Your task to perform on an android device: Go to notification settings Image 0: 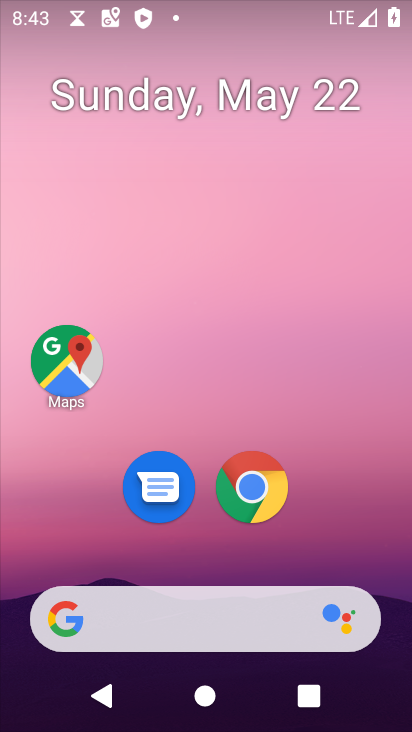
Step 0: drag from (355, 459) to (320, 109)
Your task to perform on an android device: Go to notification settings Image 1: 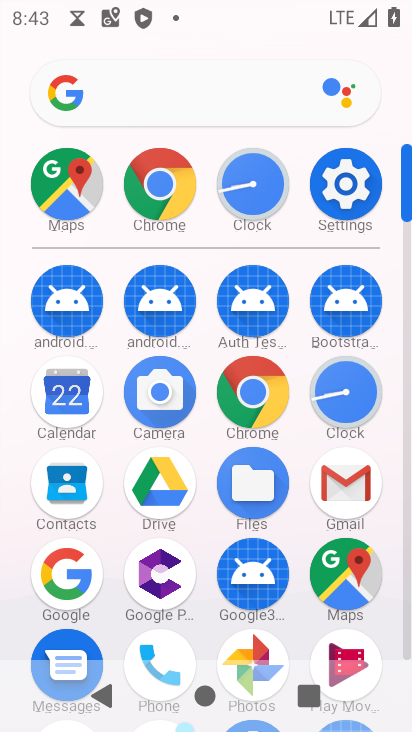
Step 1: click (344, 202)
Your task to perform on an android device: Go to notification settings Image 2: 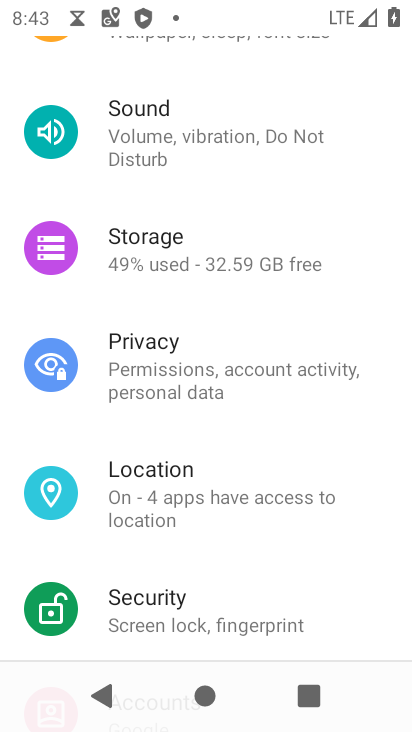
Step 2: drag from (221, 321) to (229, 551)
Your task to perform on an android device: Go to notification settings Image 3: 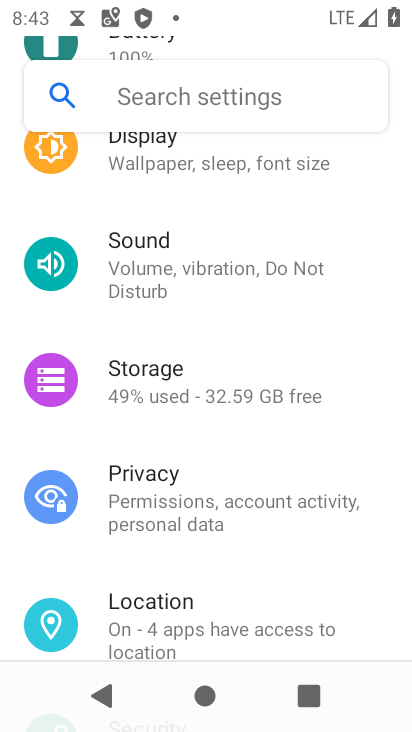
Step 3: drag from (191, 247) to (261, 581)
Your task to perform on an android device: Go to notification settings Image 4: 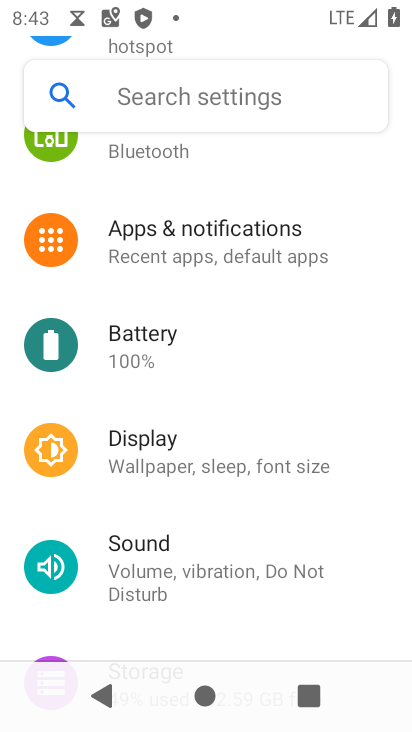
Step 4: click (198, 231)
Your task to perform on an android device: Go to notification settings Image 5: 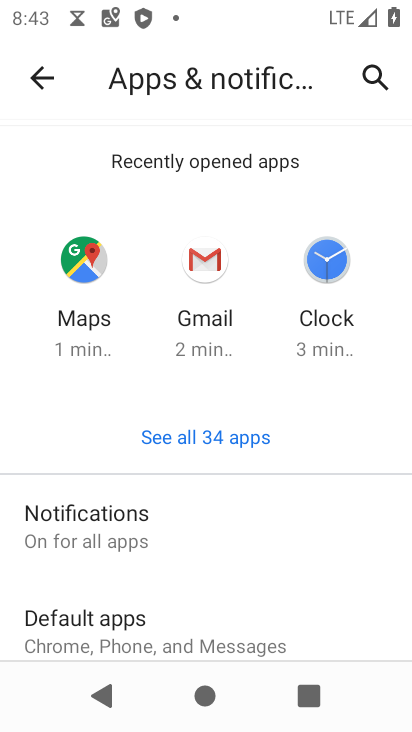
Step 5: click (96, 545)
Your task to perform on an android device: Go to notification settings Image 6: 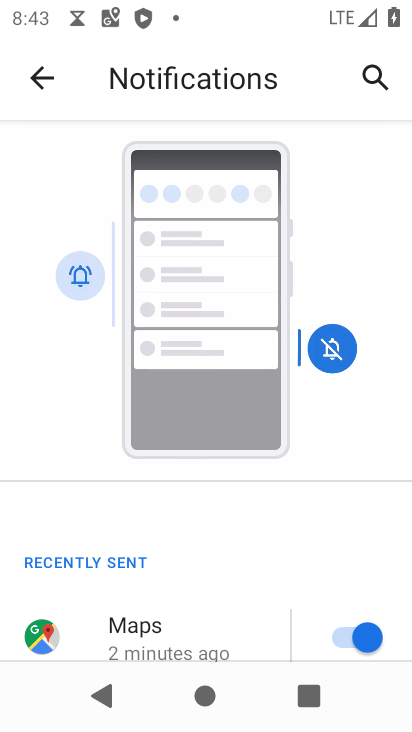
Step 6: task complete